Your task to perform on an android device: open app "VLC for Android" (install if not already installed), go to login, and select forgot password Image 0: 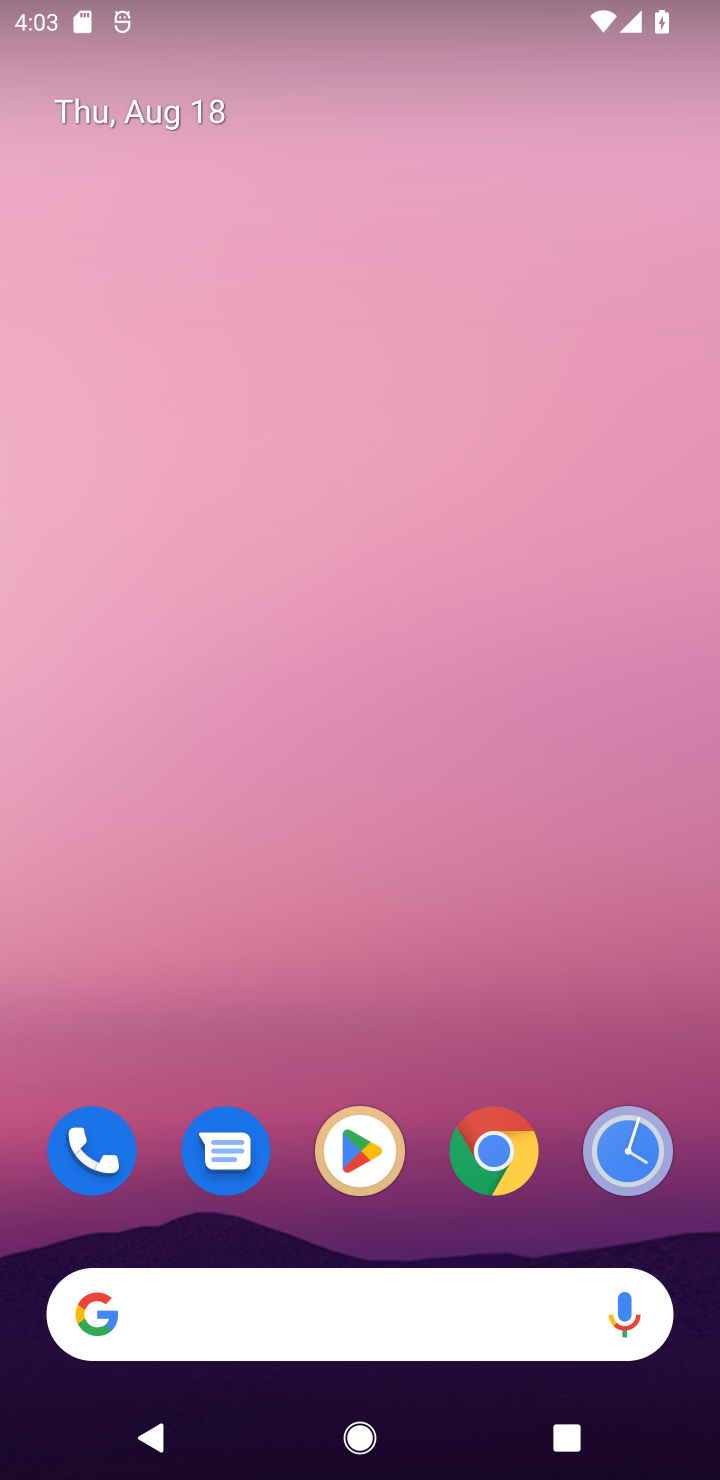
Step 0: click (394, 1146)
Your task to perform on an android device: open app "VLC for Android" (install if not already installed), go to login, and select forgot password Image 1: 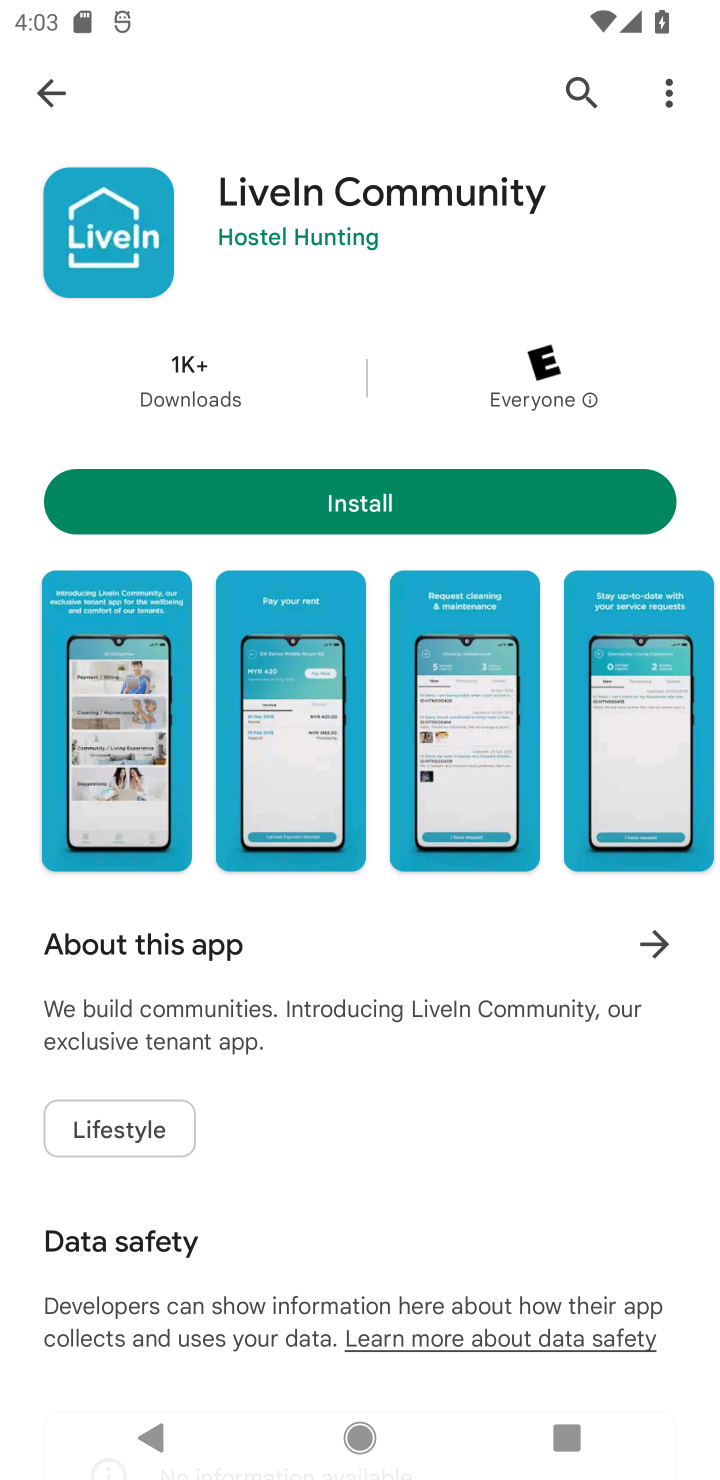
Step 1: click (581, 115)
Your task to perform on an android device: open app "VLC for Android" (install if not already installed), go to login, and select forgot password Image 2: 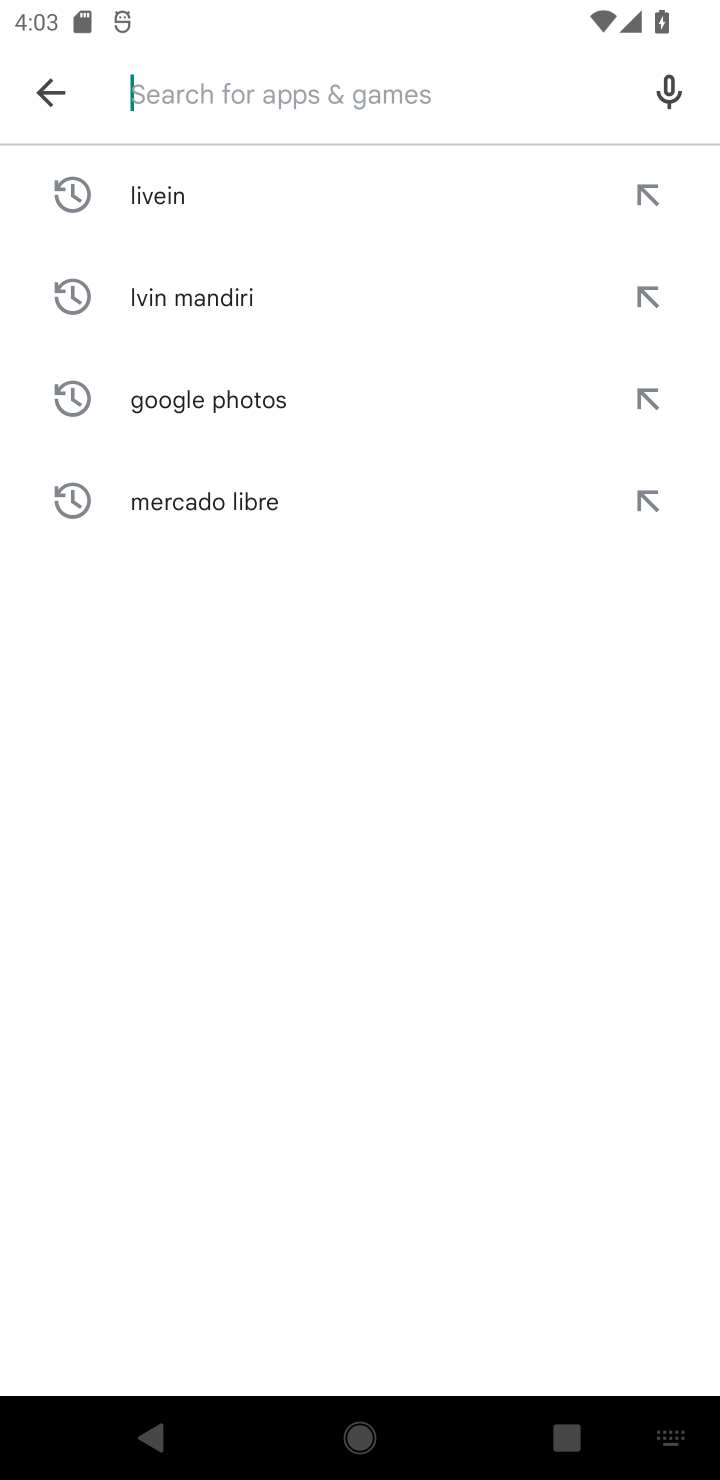
Step 2: type "VLC"
Your task to perform on an android device: open app "VLC for Android" (install if not already installed), go to login, and select forgot password Image 3: 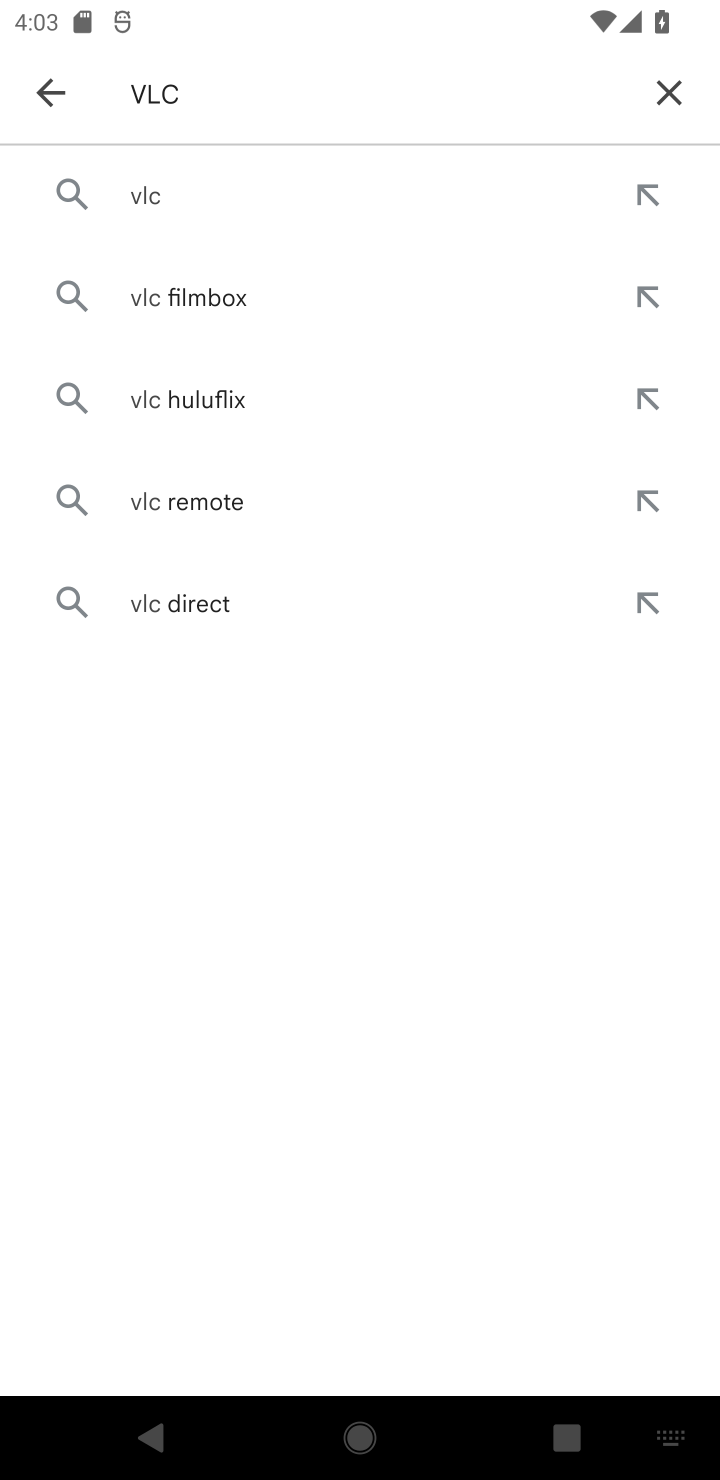
Step 3: click (355, 189)
Your task to perform on an android device: open app "VLC for Android" (install if not already installed), go to login, and select forgot password Image 4: 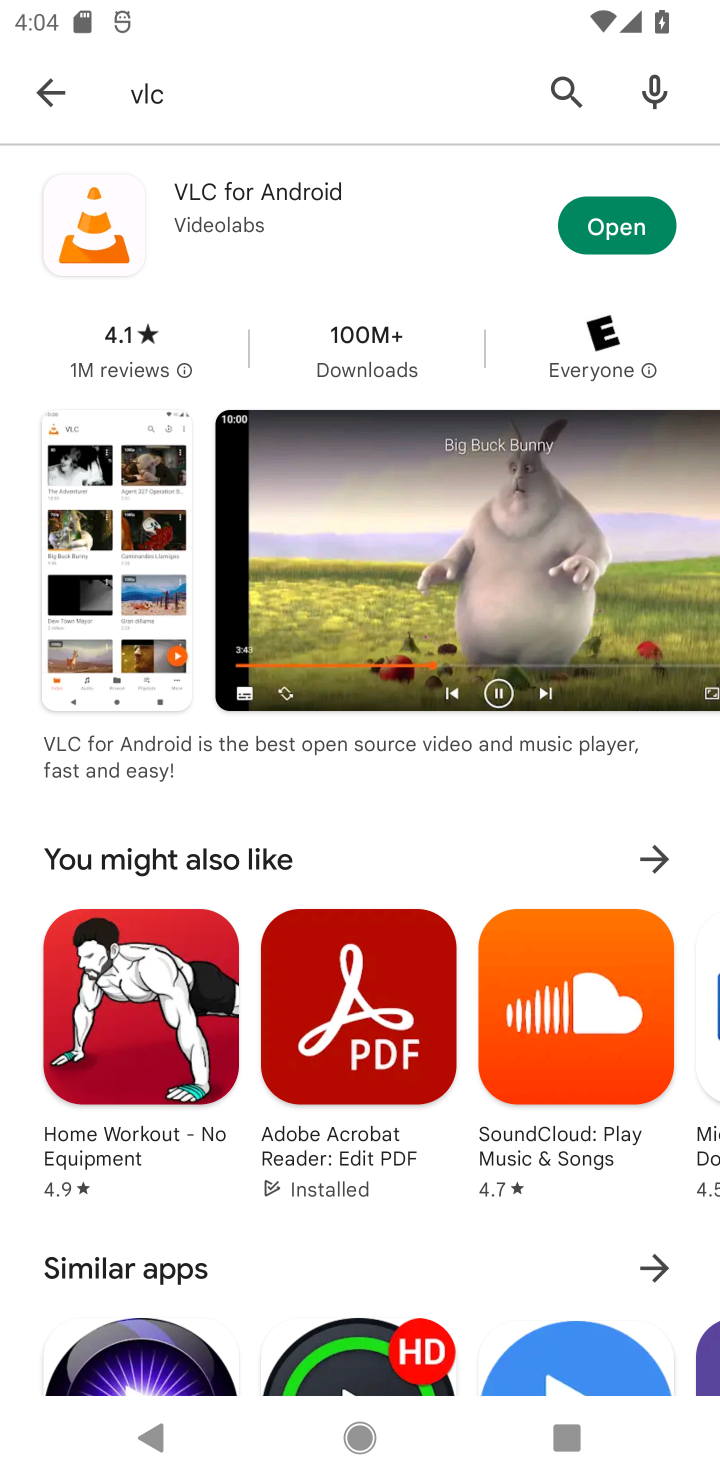
Step 4: click (626, 213)
Your task to perform on an android device: open app "VLC for Android" (install if not already installed), go to login, and select forgot password Image 5: 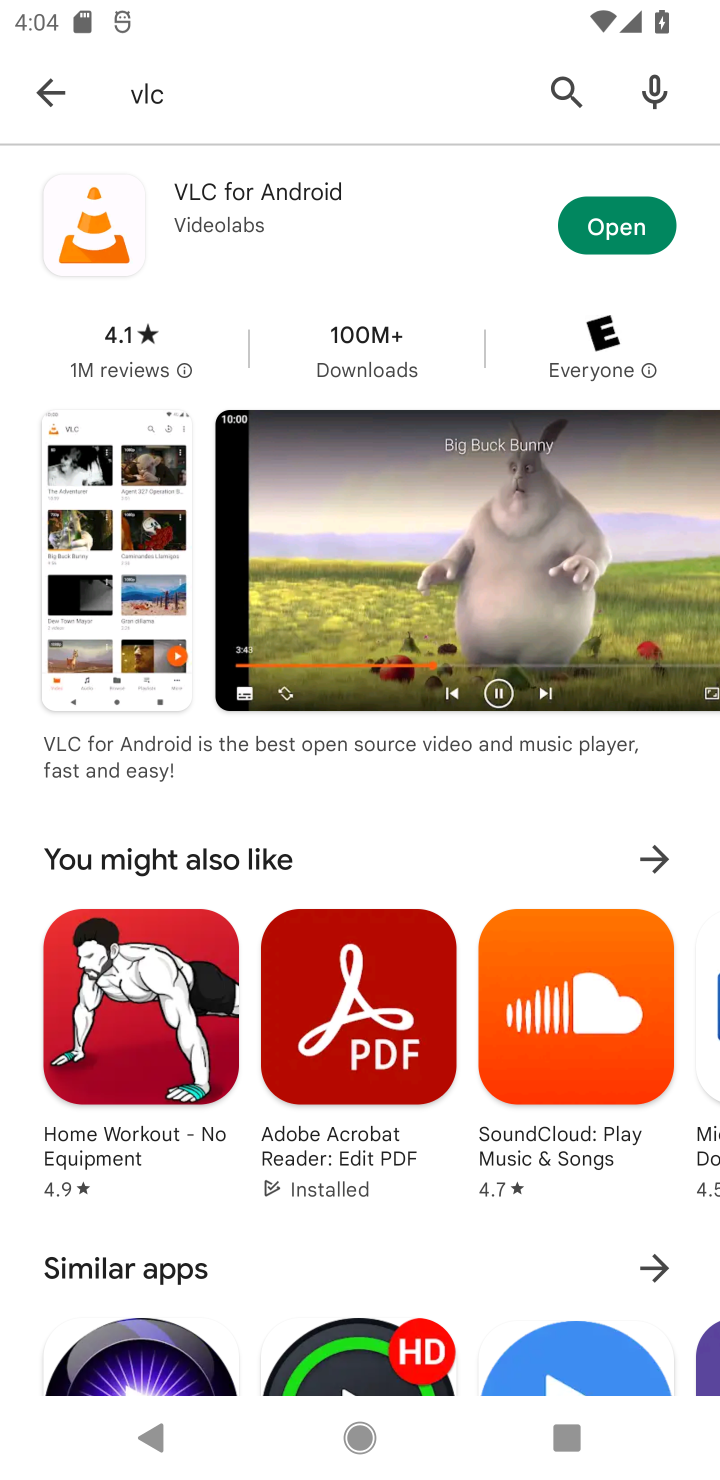
Step 5: task complete